Your task to perform on an android device: turn off priority inbox in the gmail app Image 0: 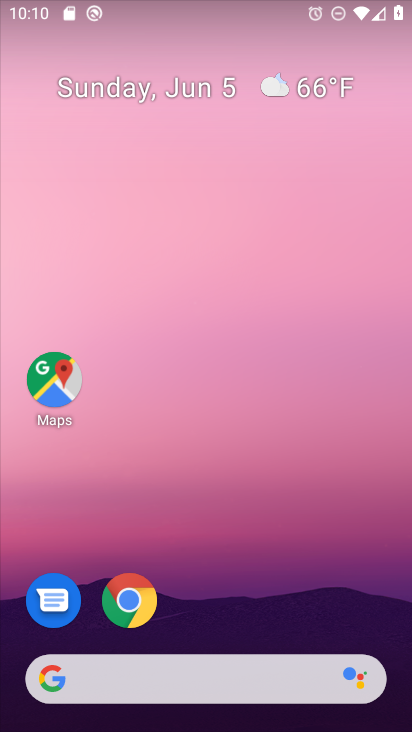
Step 0: drag from (368, 611) to (260, 22)
Your task to perform on an android device: turn off priority inbox in the gmail app Image 1: 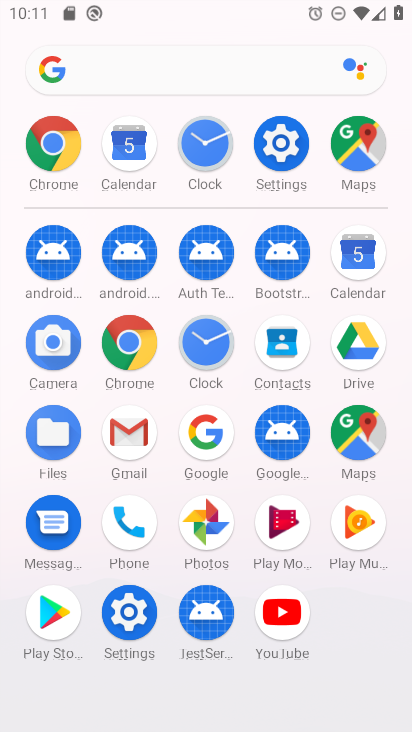
Step 1: click (126, 447)
Your task to perform on an android device: turn off priority inbox in the gmail app Image 2: 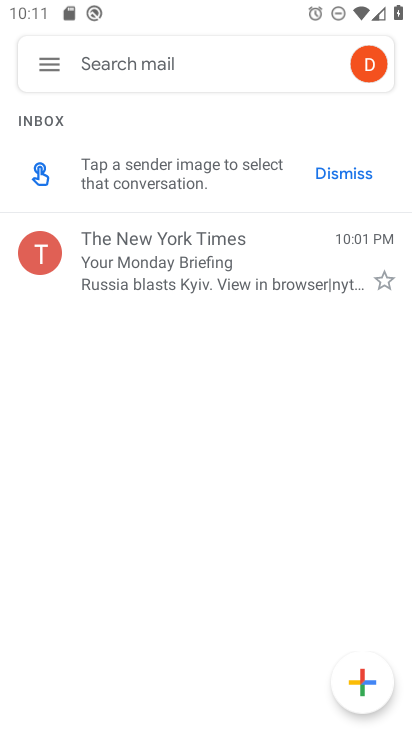
Step 2: click (40, 71)
Your task to perform on an android device: turn off priority inbox in the gmail app Image 3: 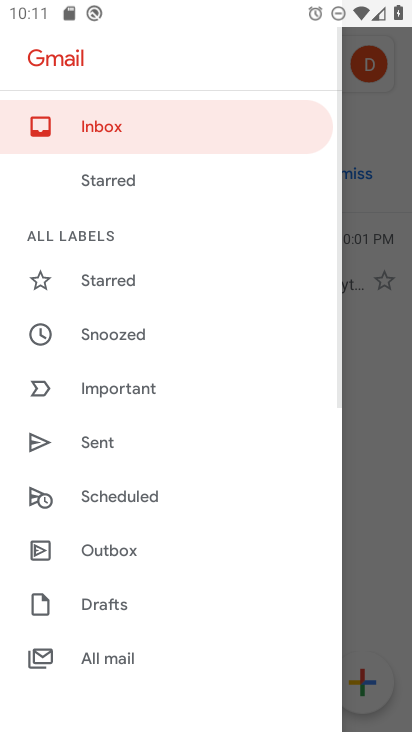
Step 3: drag from (109, 653) to (101, 112)
Your task to perform on an android device: turn off priority inbox in the gmail app Image 4: 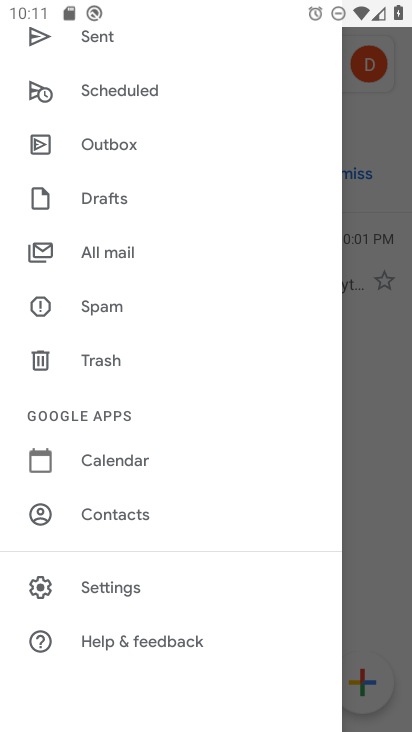
Step 4: click (76, 589)
Your task to perform on an android device: turn off priority inbox in the gmail app Image 5: 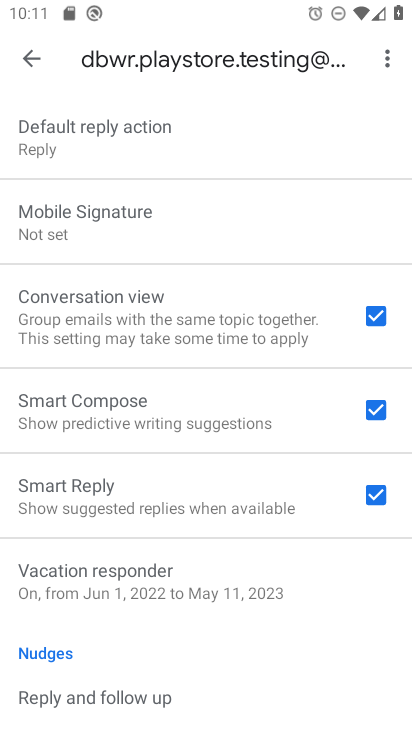
Step 5: drag from (117, 205) to (144, 730)
Your task to perform on an android device: turn off priority inbox in the gmail app Image 6: 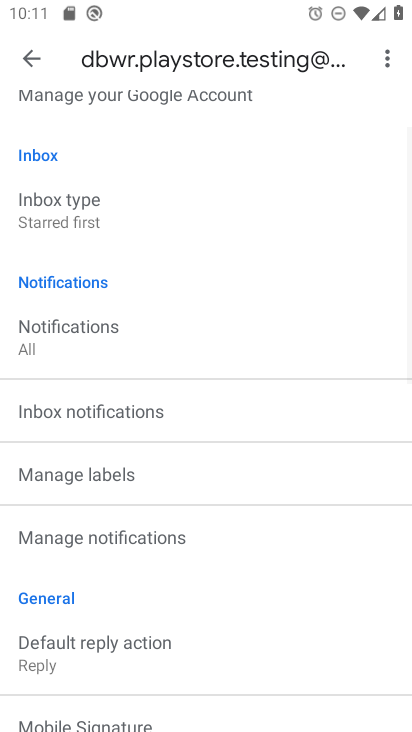
Step 6: drag from (184, 152) to (191, 670)
Your task to perform on an android device: turn off priority inbox in the gmail app Image 7: 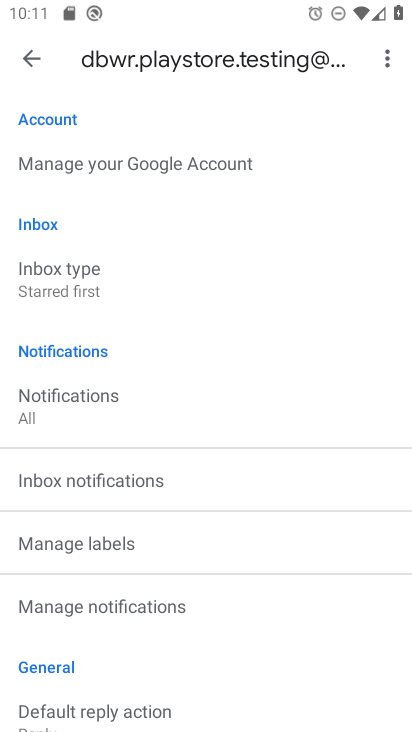
Step 7: click (116, 296)
Your task to perform on an android device: turn off priority inbox in the gmail app Image 8: 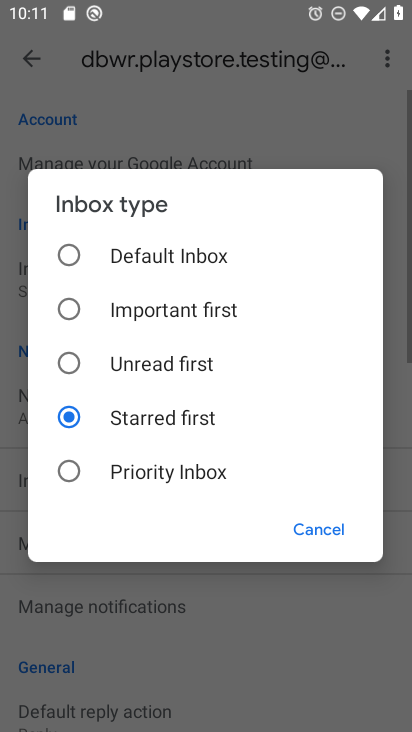
Step 8: click (41, 251)
Your task to perform on an android device: turn off priority inbox in the gmail app Image 9: 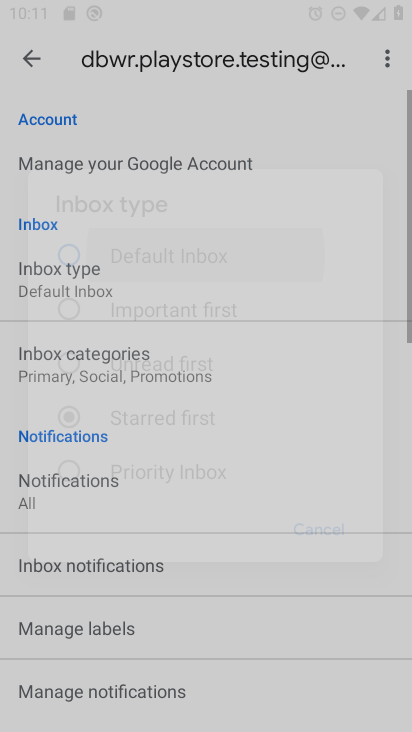
Step 9: click (63, 255)
Your task to perform on an android device: turn off priority inbox in the gmail app Image 10: 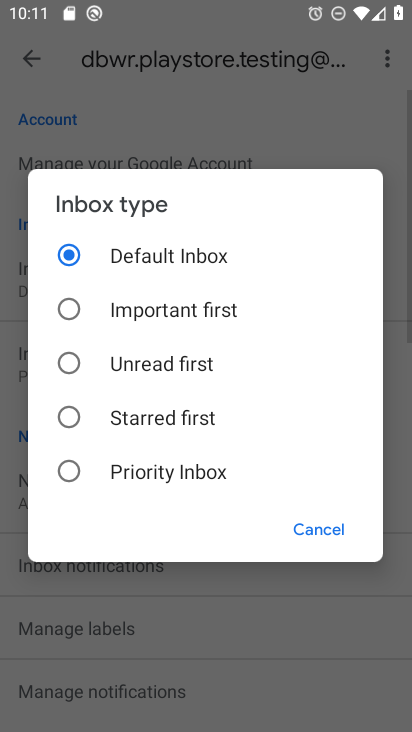
Step 10: task complete